Your task to perform on an android device: Open Google Maps Image 0: 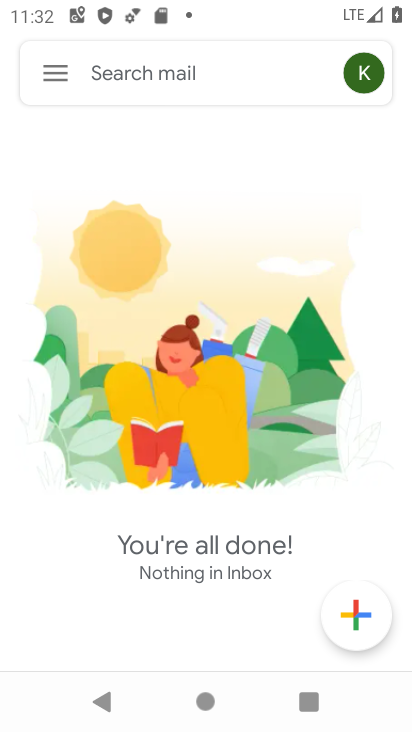
Step 0: press home button
Your task to perform on an android device: Open Google Maps Image 1: 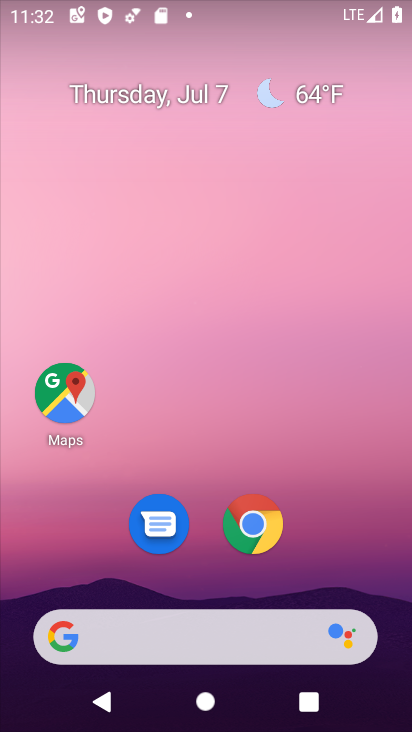
Step 1: click (54, 379)
Your task to perform on an android device: Open Google Maps Image 2: 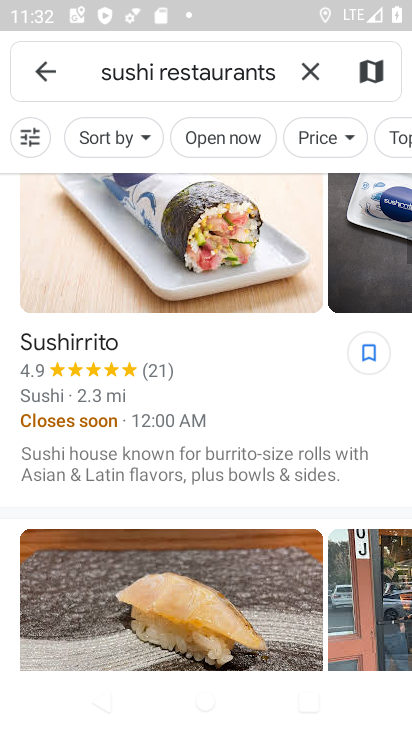
Step 2: click (311, 68)
Your task to perform on an android device: Open Google Maps Image 3: 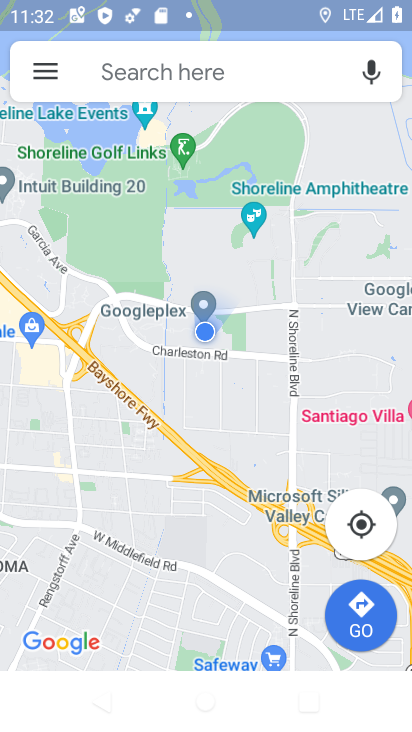
Step 3: task complete